Your task to perform on an android device: Open privacy settings Image 0: 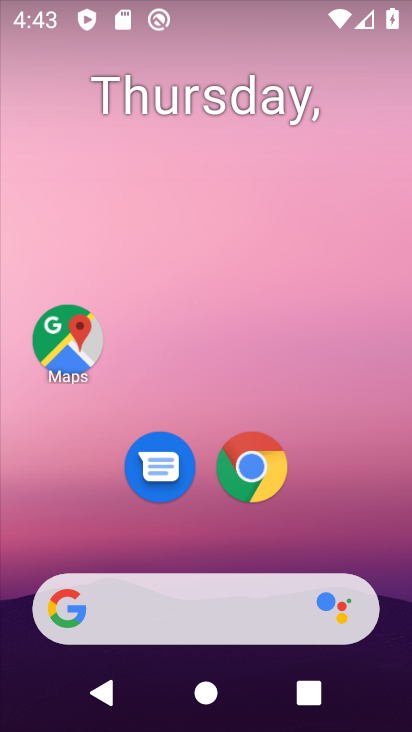
Step 0: drag from (395, 543) to (321, 4)
Your task to perform on an android device: Open privacy settings Image 1: 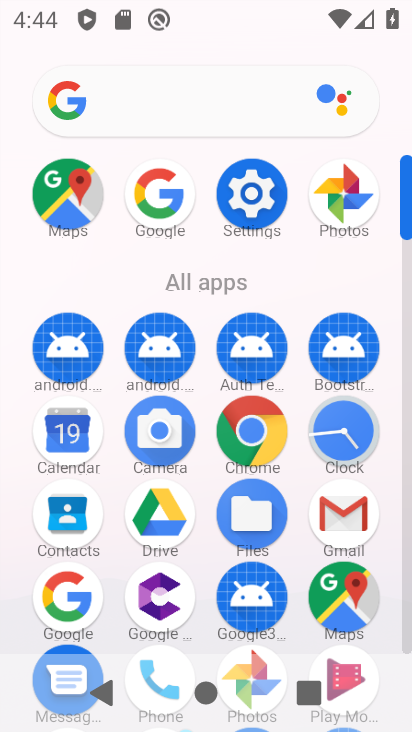
Step 1: click (257, 208)
Your task to perform on an android device: Open privacy settings Image 2: 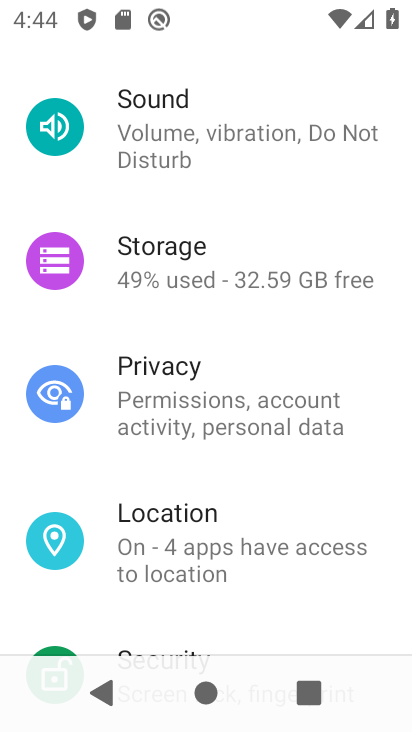
Step 2: click (290, 416)
Your task to perform on an android device: Open privacy settings Image 3: 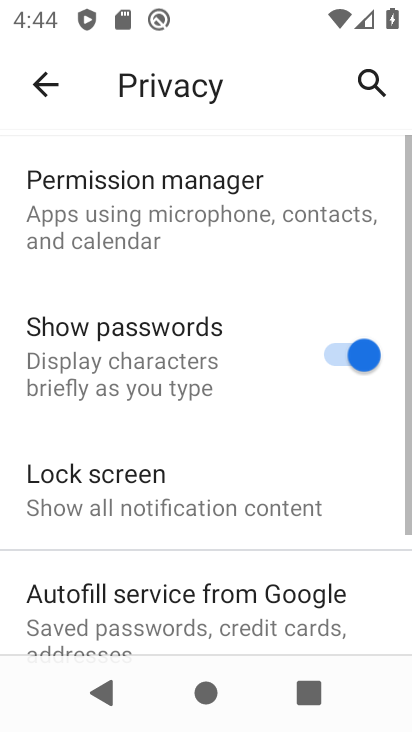
Step 3: task complete